Your task to perform on an android device: clear all cookies in the chrome app Image 0: 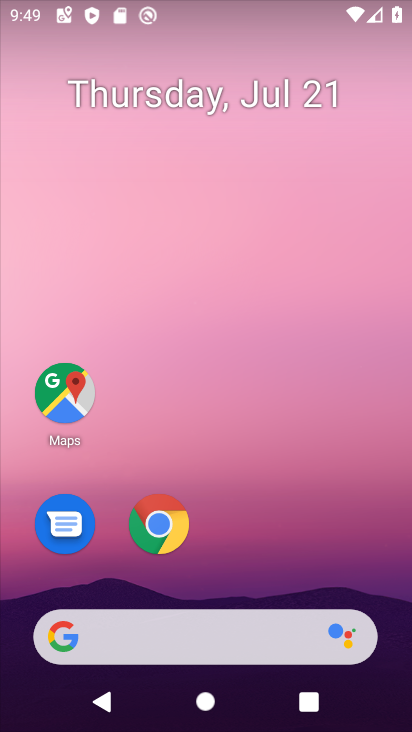
Step 0: press home button
Your task to perform on an android device: clear all cookies in the chrome app Image 1: 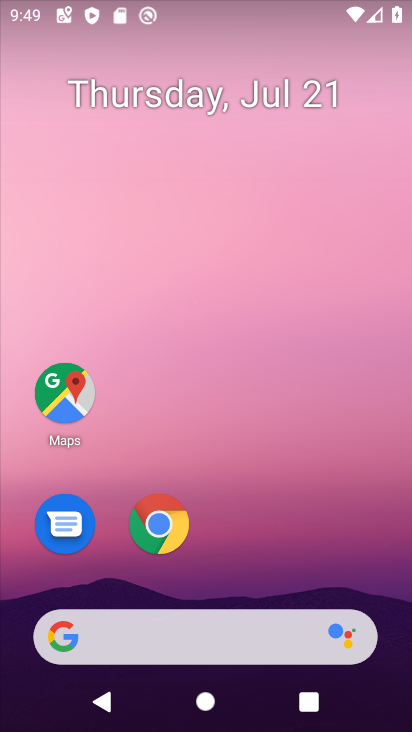
Step 1: click (163, 517)
Your task to perform on an android device: clear all cookies in the chrome app Image 2: 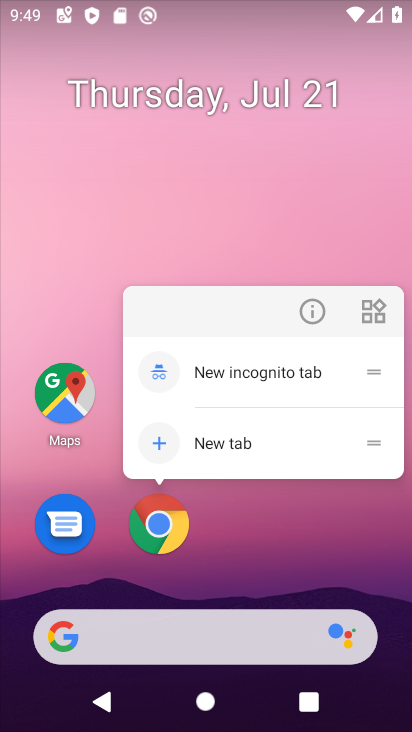
Step 2: click (145, 539)
Your task to perform on an android device: clear all cookies in the chrome app Image 3: 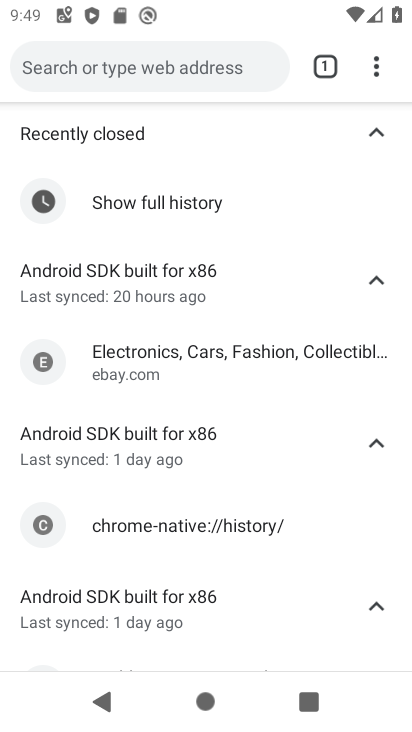
Step 3: drag from (372, 65) to (217, 563)
Your task to perform on an android device: clear all cookies in the chrome app Image 4: 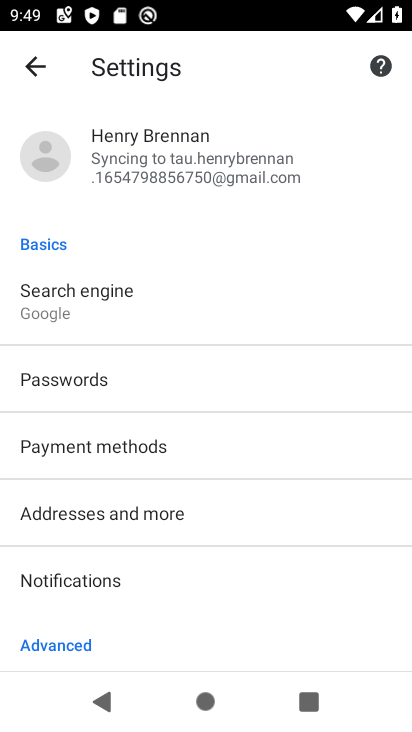
Step 4: drag from (224, 560) to (286, 250)
Your task to perform on an android device: clear all cookies in the chrome app Image 5: 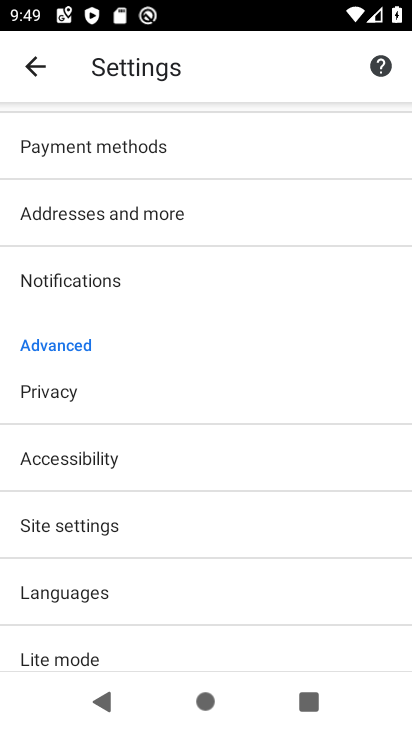
Step 5: click (61, 389)
Your task to perform on an android device: clear all cookies in the chrome app Image 6: 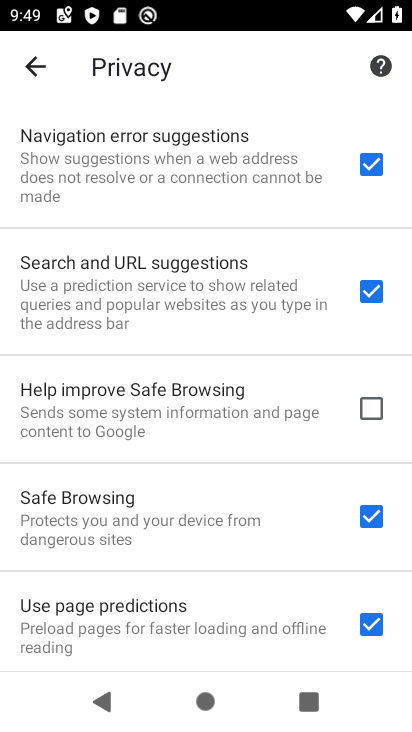
Step 6: drag from (195, 605) to (306, 86)
Your task to perform on an android device: clear all cookies in the chrome app Image 7: 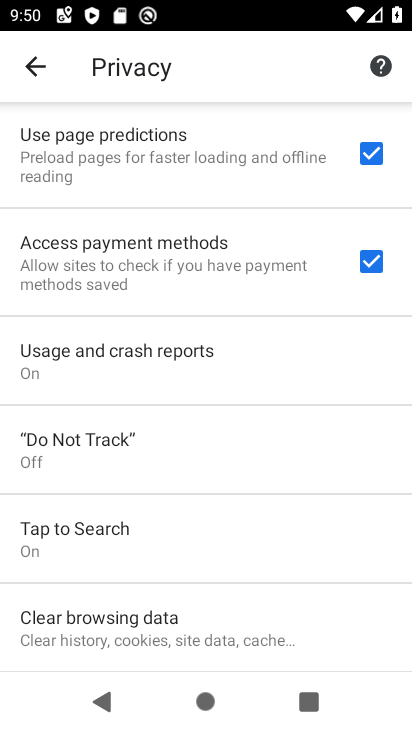
Step 7: drag from (198, 524) to (291, 132)
Your task to perform on an android device: clear all cookies in the chrome app Image 8: 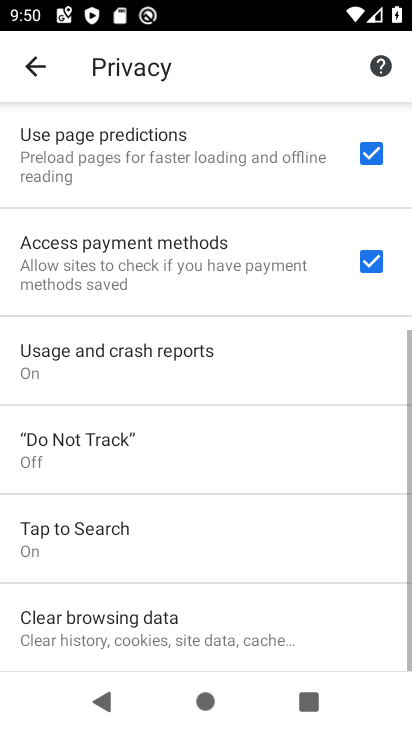
Step 8: click (149, 614)
Your task to perform on an android device: clear all cookies in the chrome app Image 9: 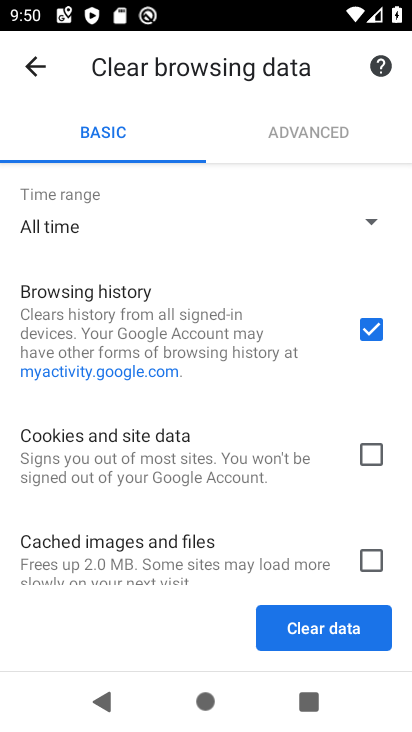
Step 9: click (374, 442)
Your task to perform on an android device: clear all cookies in the chrome app Image 10: 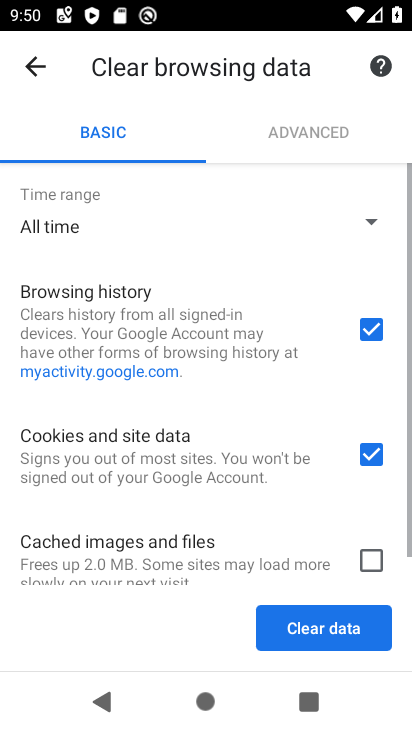
Step 10: click (376, 332)
Your task to perform on an android device: clear all cookies in the chrome app Image 11: 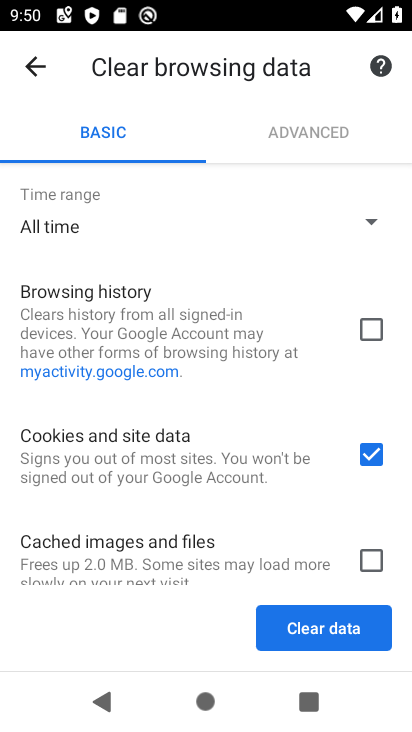
Step 11: click (316, 627)
Your task to perform on an android device: clear all cookies in the chrome app Image 12: 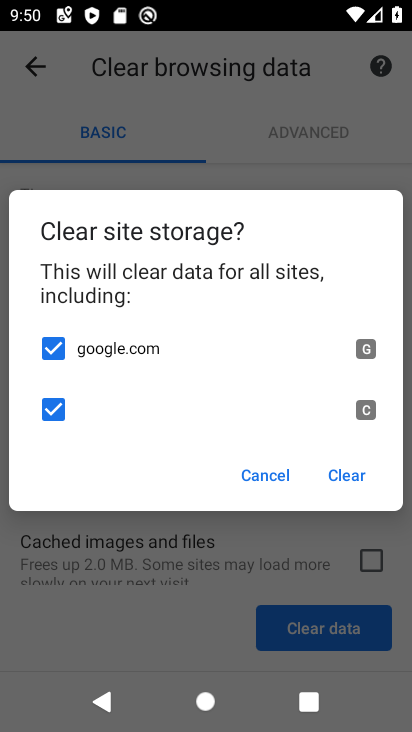
Step 12: click (342, 472)
Your task to perform on an android device: clear all cookies in the chrome app Image 13: 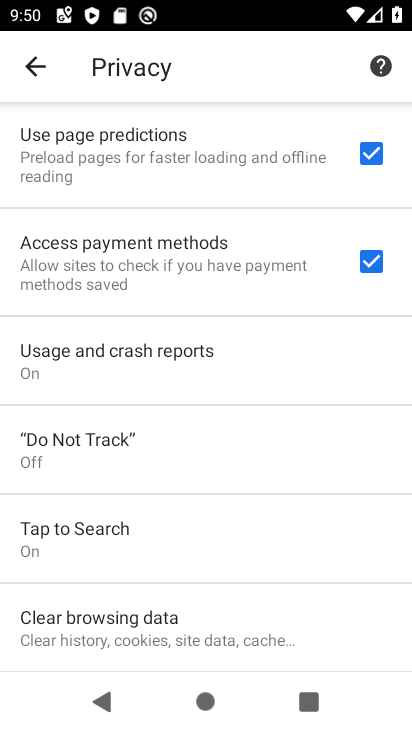
Step 13: task complete